Your task to perform on an android device: find snoozed emails in the gmail app Image 0: 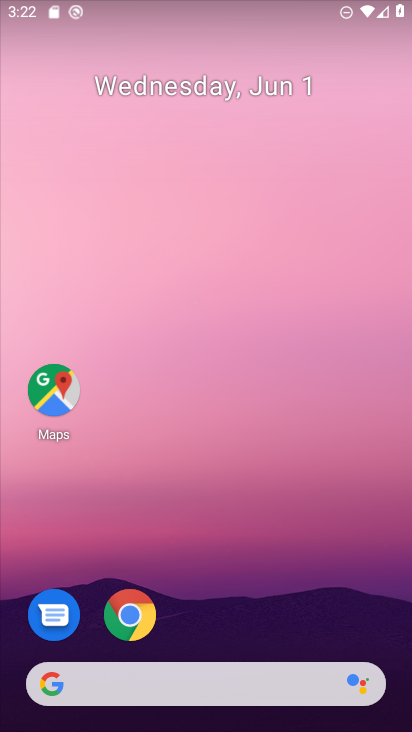
Step 0: press home button
Your task to perform on an android device: find snoozed emails in the gmail app Image 1: 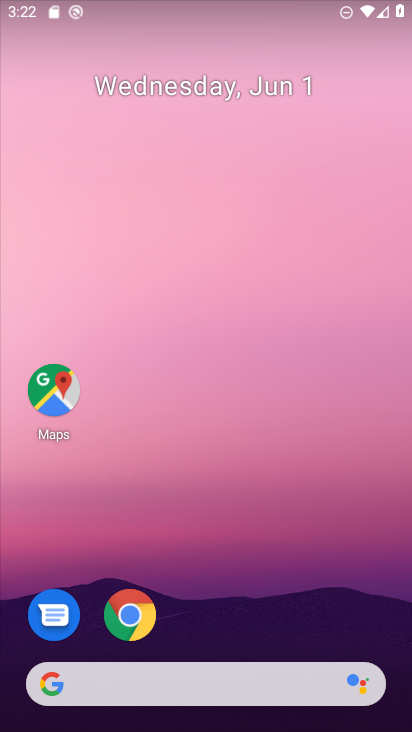
Step 1: drag from (222, 637) to (245, 325)
Your task to perform on an android device: find snoozed emails in the gmail app Image 2: 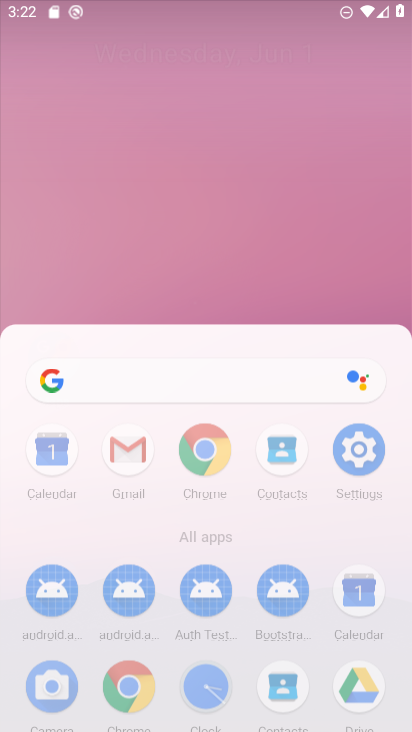
Step 2: click (269, 129)
Your task to perform on an android device: find snoozed emails in the gmail app Image 3: 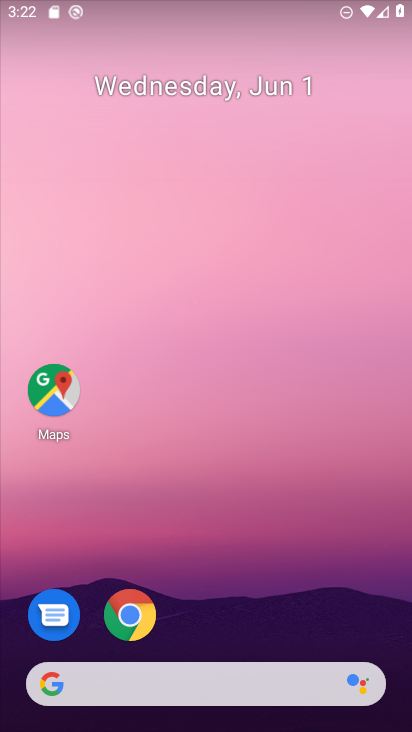
Step 3: drag from (224, 644) to (239, 130)
Your task to perform on an android device: find snoozed emails in the gmail app Image 4: 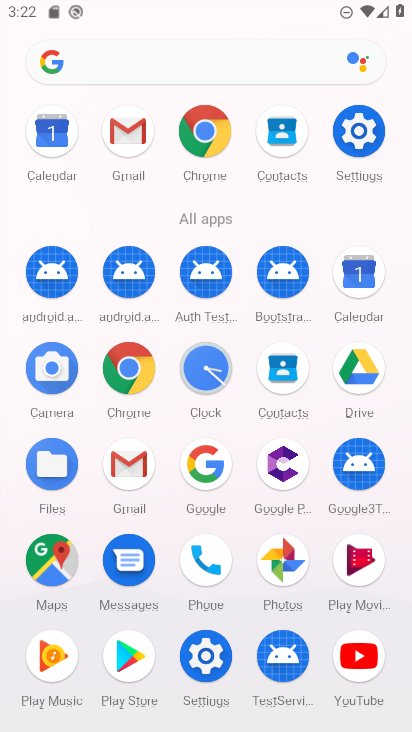
Step 4: click (125, 457)
Your task to perform on an android device: find snoozed emails in the gmail app Image 5: 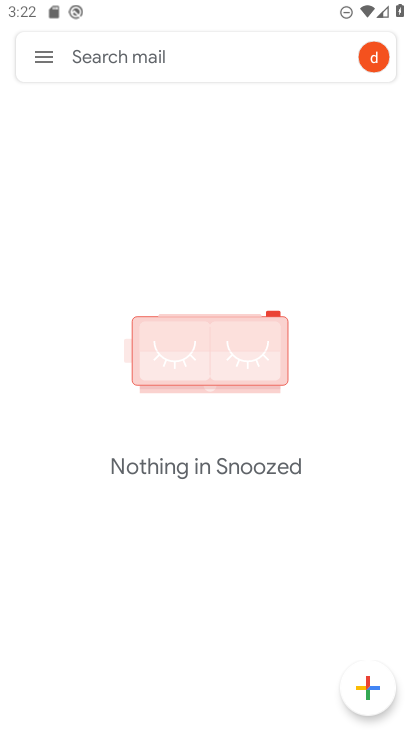
Step 5: task complete